Your task to perform on an android device: change text size in settings app Image 0: 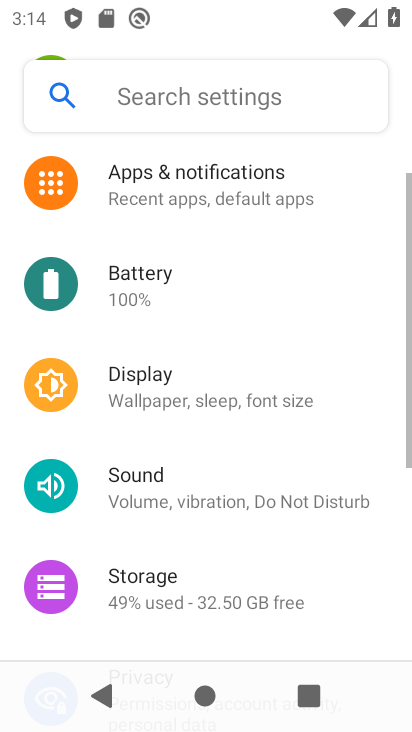
Step 0: drag from (207, 545) to (234, 111)
Your task to perform on an android device: change text size in settings app Image 1: 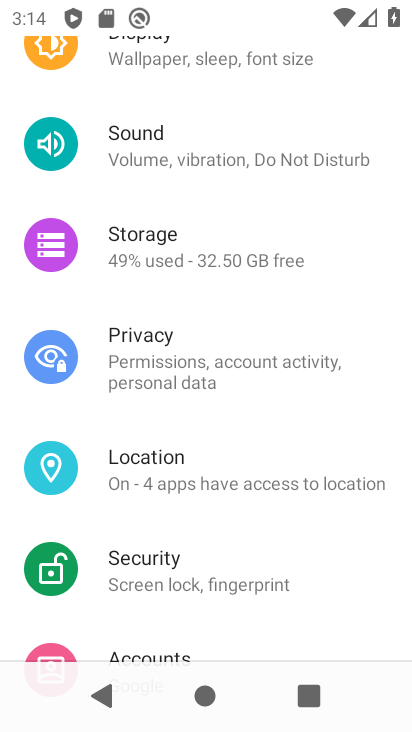
Step 1: click (174, 60)
Your task to perform on an android device: change text size in settings app Image 2: 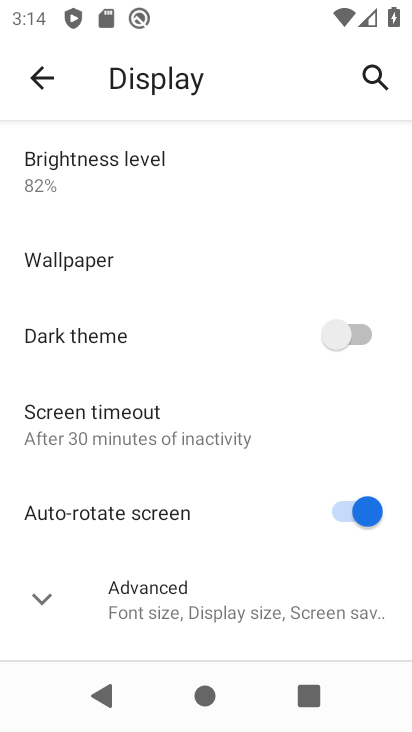
Step 2: click (44, 588)
Your task to perform on an android device: change text size in settings app Image 3: 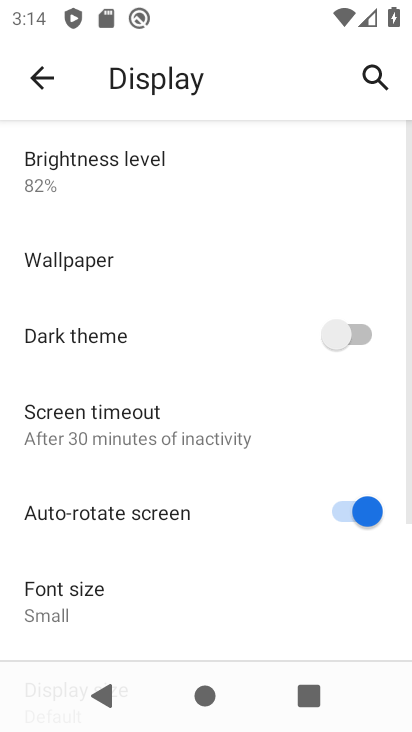
Step 3: click (116, 606)
Your task to perform on an android device: change text size in settings app Image 4: 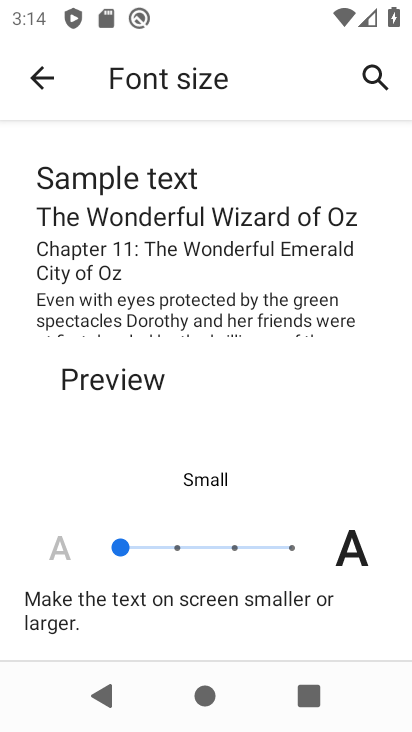
Step 4: click (172, 551)
Your task to perform on an android device: change text size in settings app Image 5: 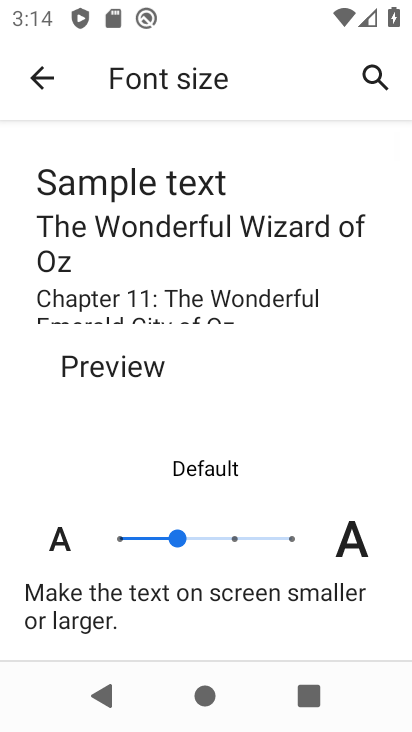
Step 5: task complete